Your task to perform on an android device: move a message to another label in the gmail app Image 0: 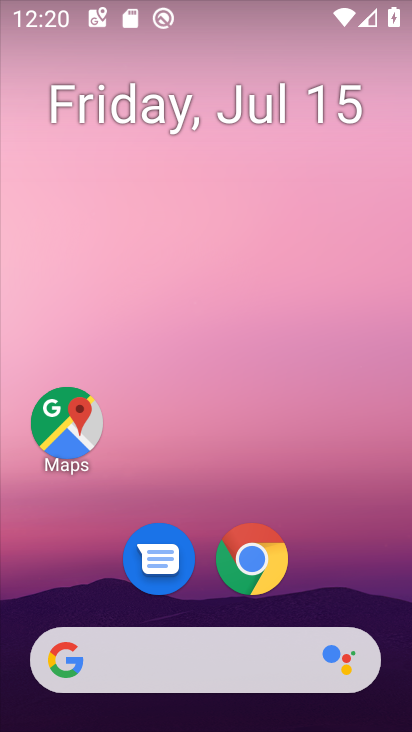
Step 0: drag from (361, 572) to (361, 172)
Your task to perform on an android device: move a message to another label in the gmail app Image 1: 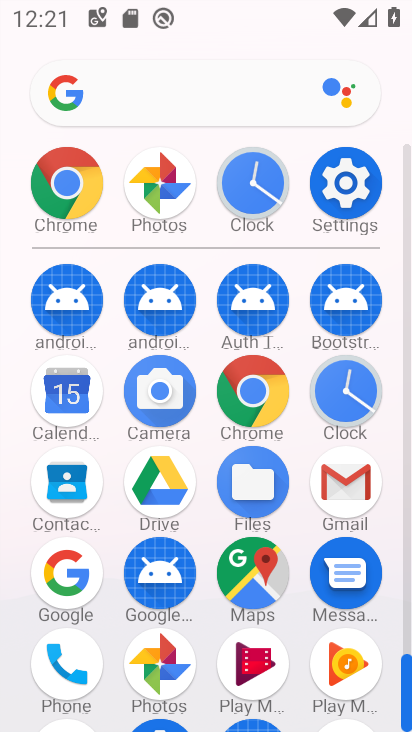
Step 1: click (346, 470)
Your task to perform on an android device: move a message to another label in the gmail app Image 2: 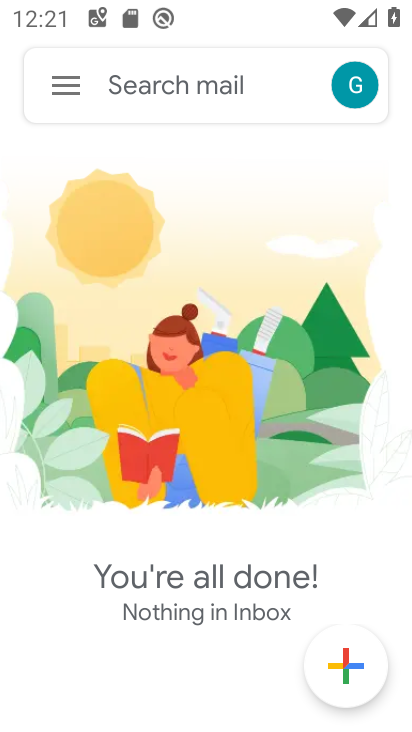
Step 2: click (70, 86)
Your task to perform on an android device: move a message to another label in the gmail app Image 3: 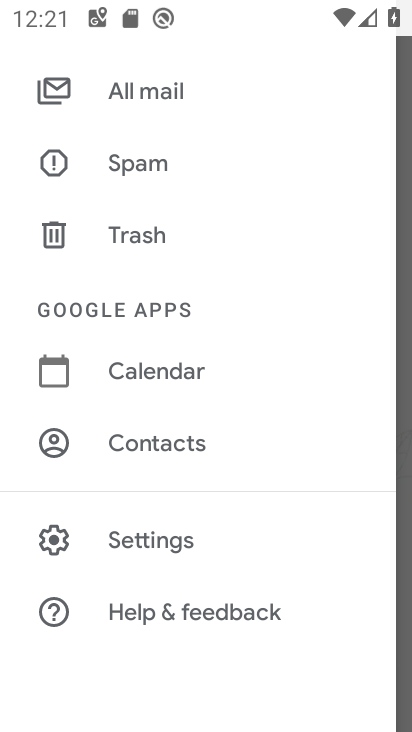
Step 3: drag from (284, 271) to (302, 350)
Your task to perform on an android device: move a message to another label in the gmail app Image 4: 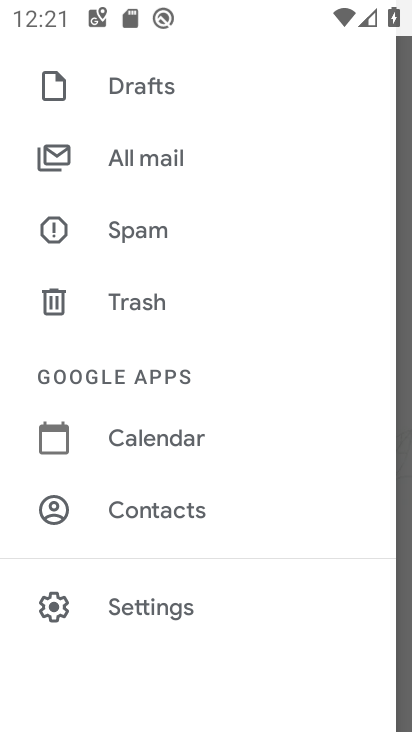
Step 4: drag from (298, 239) to (306, 366)
Your task to perform on an android device: move a message to another label in the gmail app Image 5: 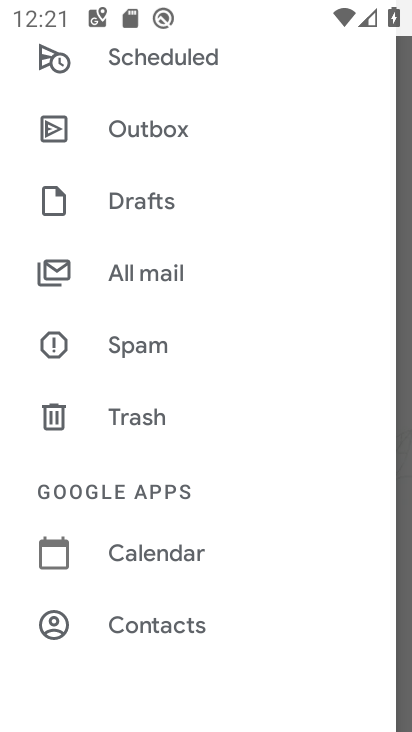
Step 5: drag from (311, 236) to (320, 340)
Your task to perform on an android device: move a message to another label in the gmail app Image 6: 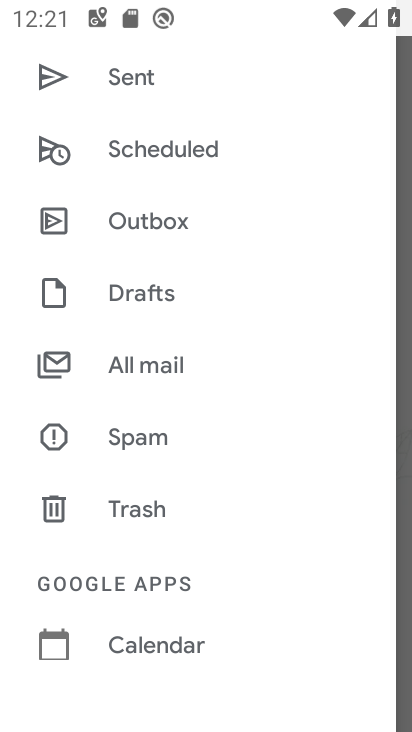
Step 6: click (227, 375)
Your task to perform on an android device: move a message to another label in the gmail app Image 7: 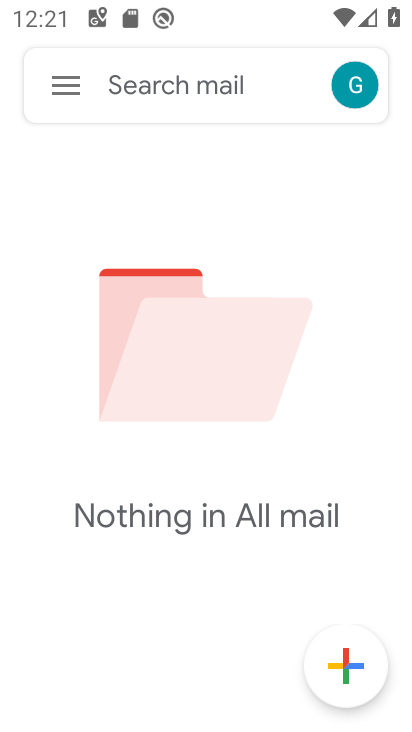
Step 7: task complete